Your task to perform on an android device: turn smart compose on in the gmail app Image 0: 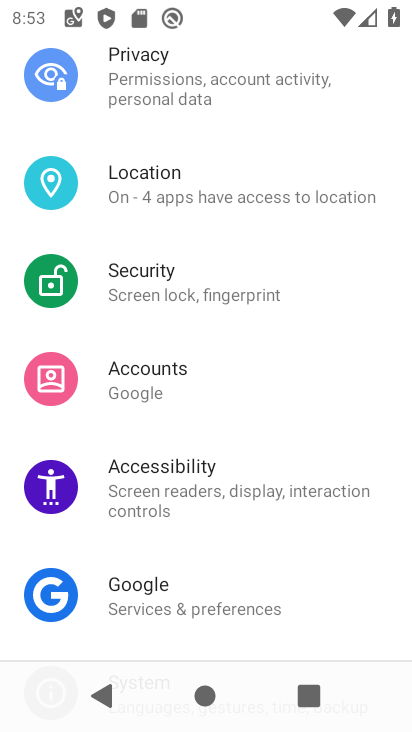
Step 0: press home button
Your task to perform on an android device: turn smart compose on in the gmail app Image 1: 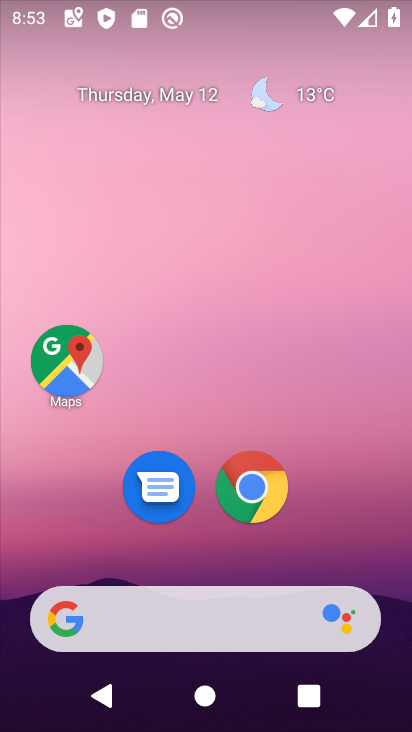
Step 1: drag from (366, 552) to (369, 2)
Your task to perform on an android device: turn smart compose on in the gmail app Image 2: 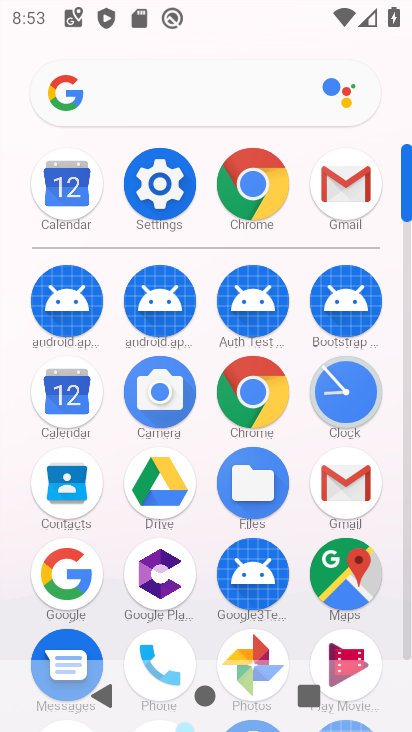
Step 2: click (345, 201)
Your task to perform on an android device: turn smart compose on in the gmail app Image 3: 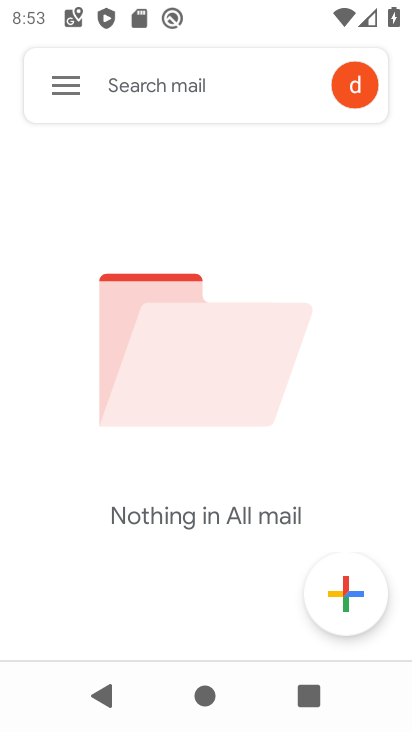
Step 3: click (64, 78)
Your task to perform on an android device: turn smart compose on in the gmail app Image 4: 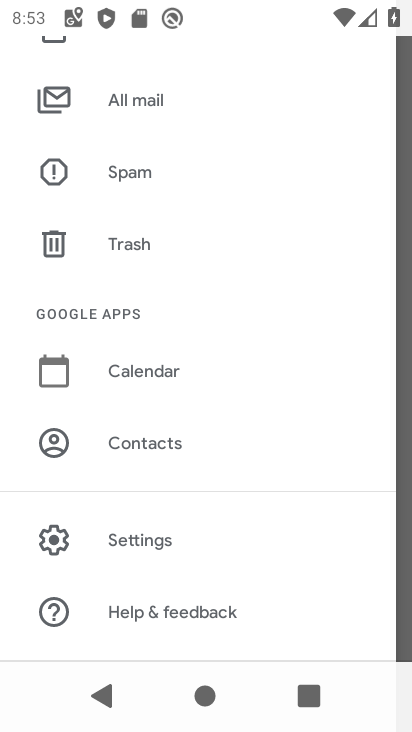
Step 4: click (152, 537)
Your task to perform on an android device: turn smart compose on in the gmail app Image 5: 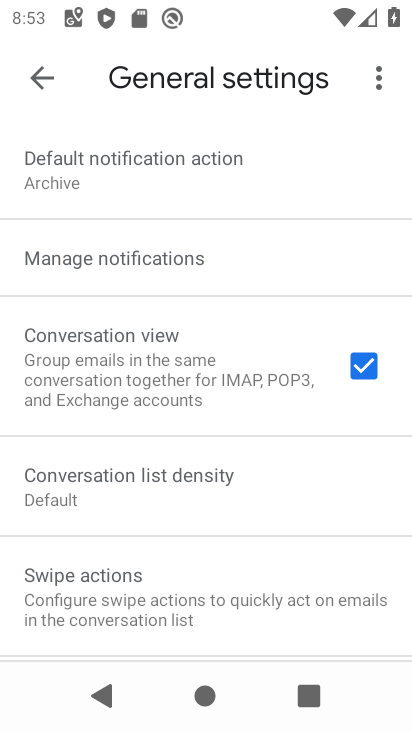
Step 5: click (52, 76)
Your task to perform on an android device: turn smart compose on in the gmail app Image 6: 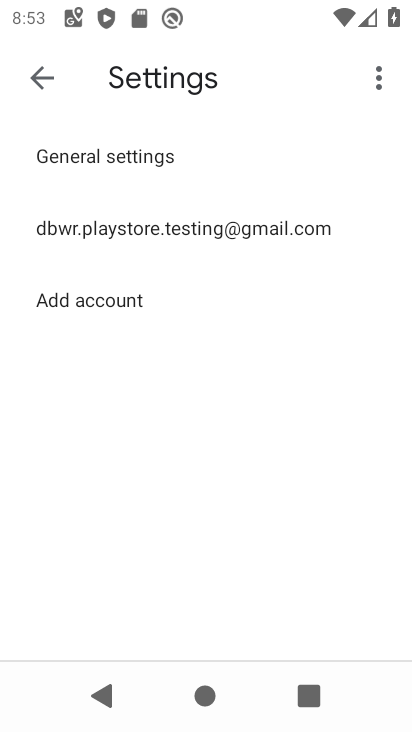
Step 6: click (108, 229)
Your task to perform on an android device: turn smart compose on in the gmail app Image 7: 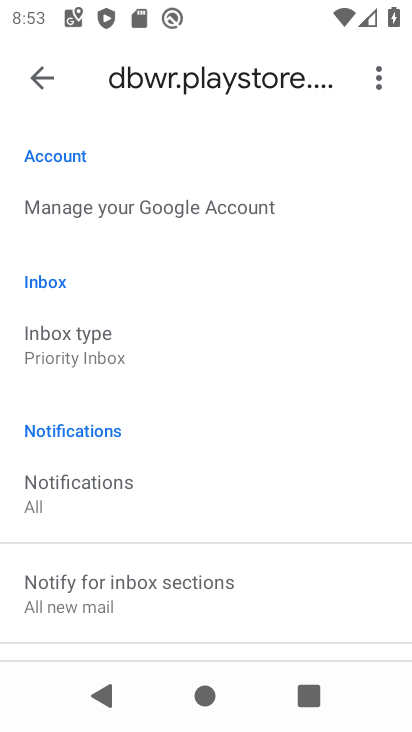
Step 7: task complete